Your task to perform on an android device: snooze an email in the gmail app Image 0: 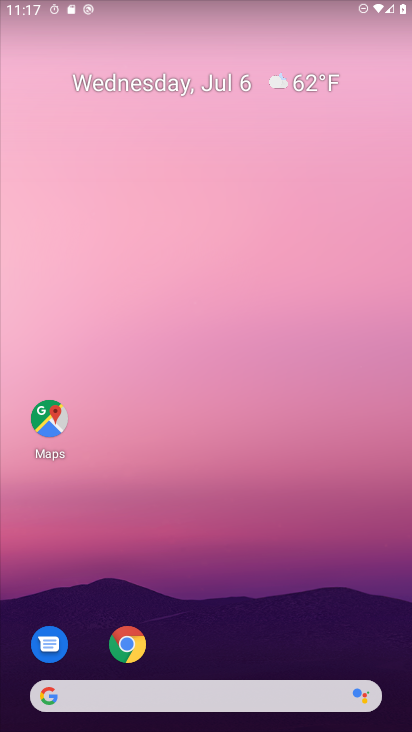
Step 0: press home button
Your task to perform on an android device: snooze an email in the gmail app Image 1: 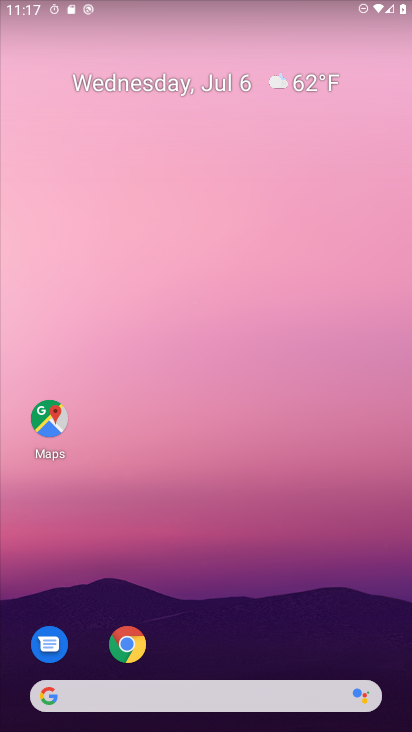
Step 1: drag from (234, 636) to (255, 75)
Your task to perform on an android device: snooze an email in the gmail app Image 2: 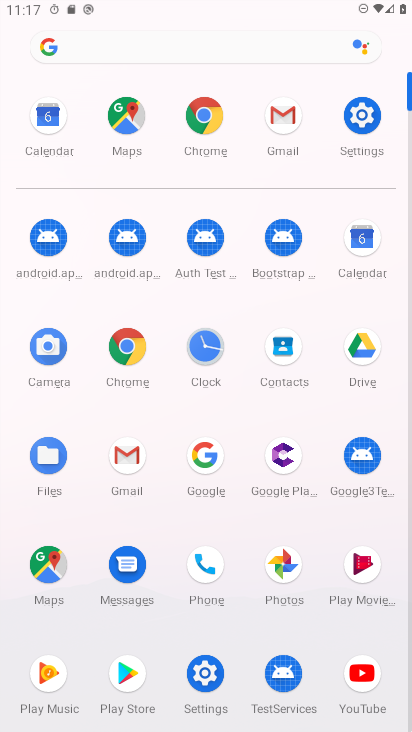
Step 2: click (280, 113)
Your task to perform on an android device: snooze an email in the gmail app Image 3: 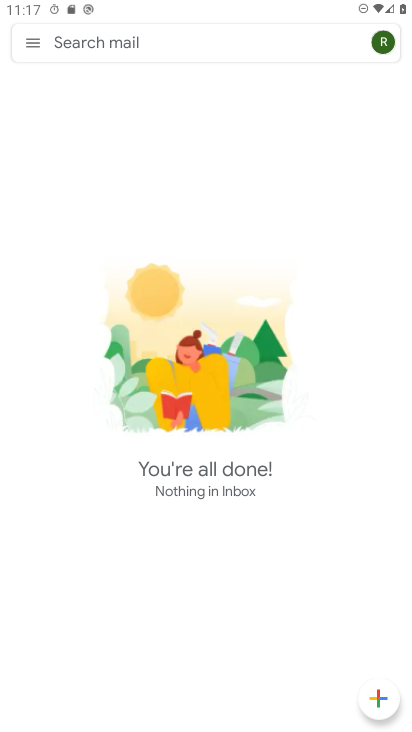
Step 3: click (37, 29)
Your task to perform on an android device: snooze an email in the gmail app Image 4: 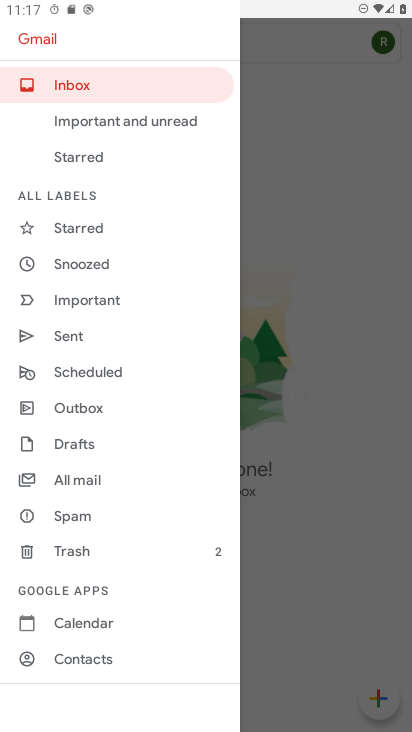
Step 4: click (83, 481)
Your task to perform on an android device: snooze an email in the gmail app Image 5: 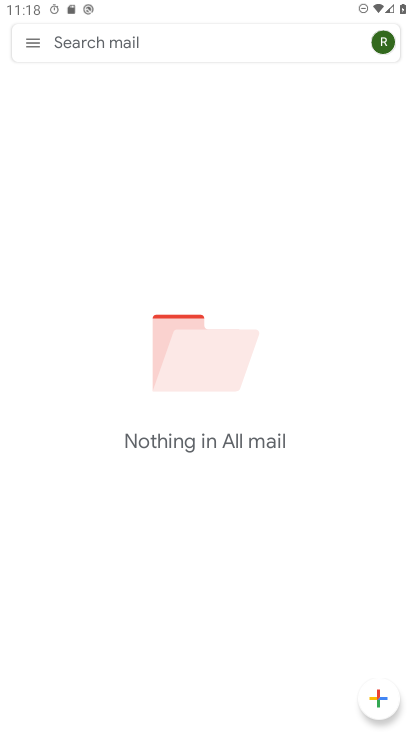
Step 5: task complete